Your task to perform on an android device: delete the emails in spam in the gmail app Image 0: 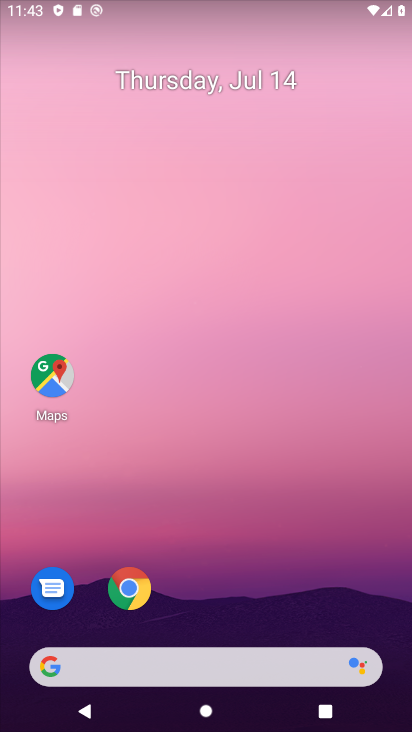
Step 0: drag from (153, 634) to (222, 16)
Your task to perform on an android device: delete the emails in spam in the gmail app Image 1: 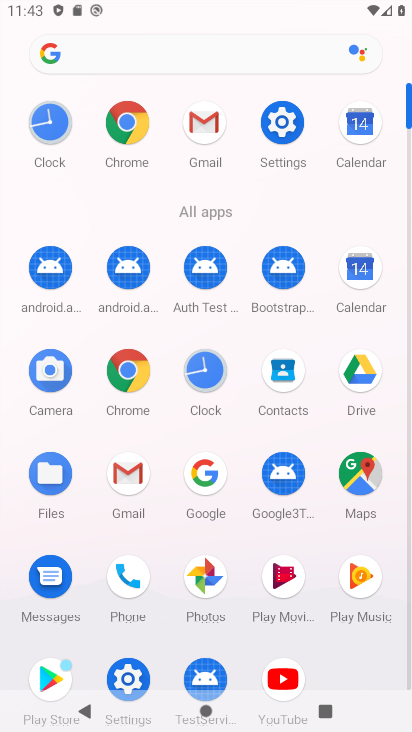
Step 1: click (212, 111)
Your task to perform on an android device: delete the emails in spam in the gmail app Image 2: 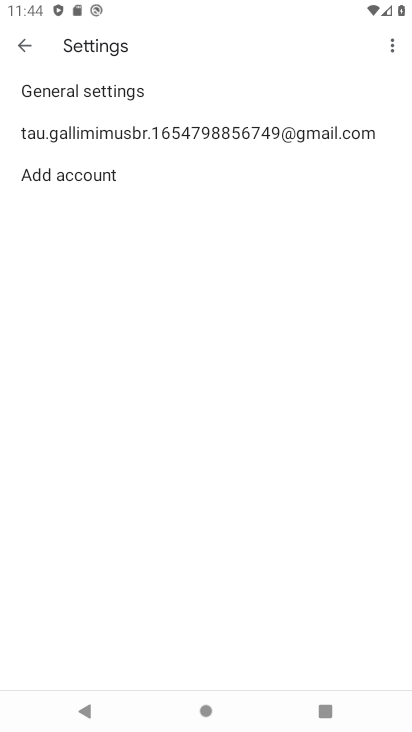
Step 2: click (71, 132)
Your task to perform on an android device: delete the emails in spam in the gmail app Image 3: 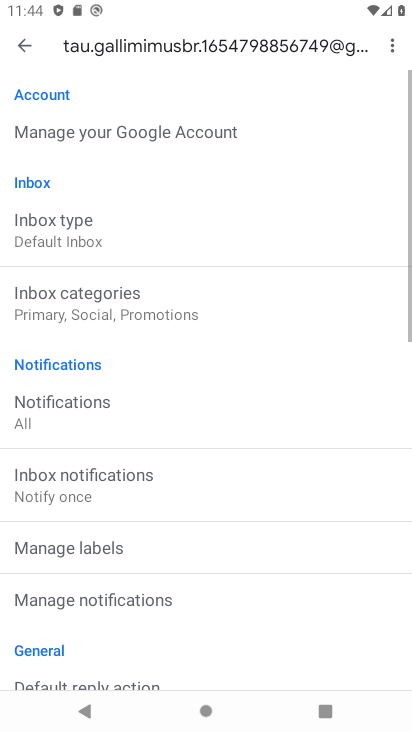
Step 3: click (17, 41)
Your task to perform on an android device: delete the emails in spam in the gmail app Image 4: 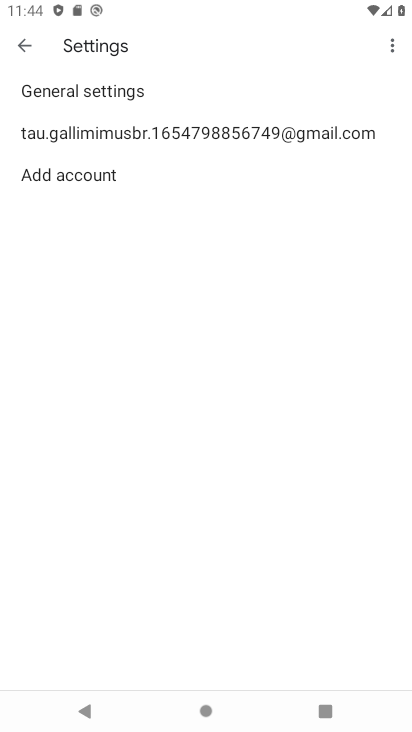
Step 4: click (24, 44)
Your task to perform on an android device: delete the emails in spam in the gmail app Image 5: 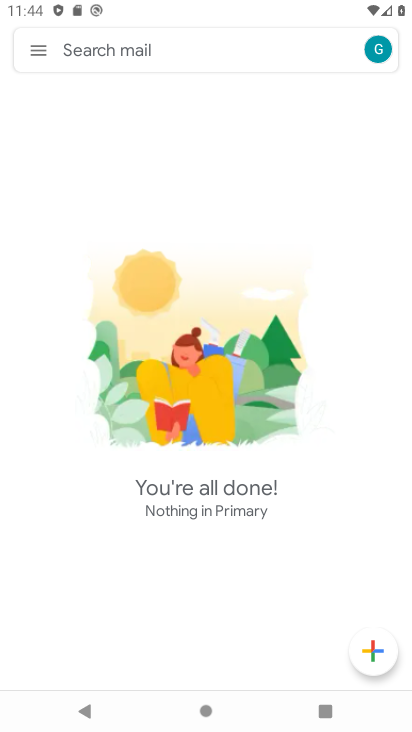
Step 5: click (40, 52)
Your task to perform on an android device: delete the emails in spam in the gmail app Image 6: 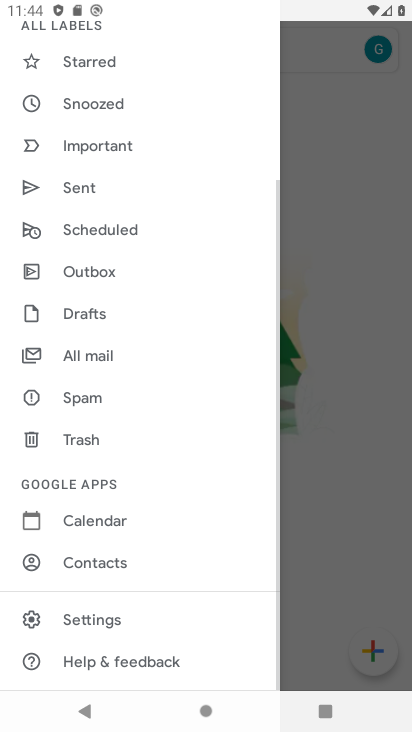
Step 6: click (102, 396)
Your task to perform on an android device: delete the emails in spam in the gmail app Image 7: 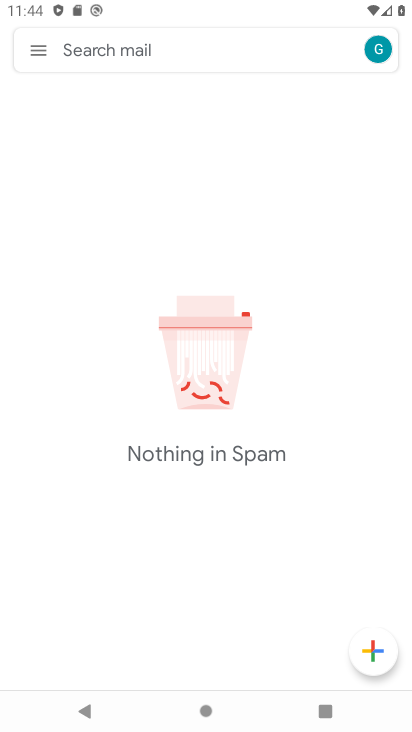
Step 7: task complete